Your task to perform on an android device: install app "Reddit" Image 0: 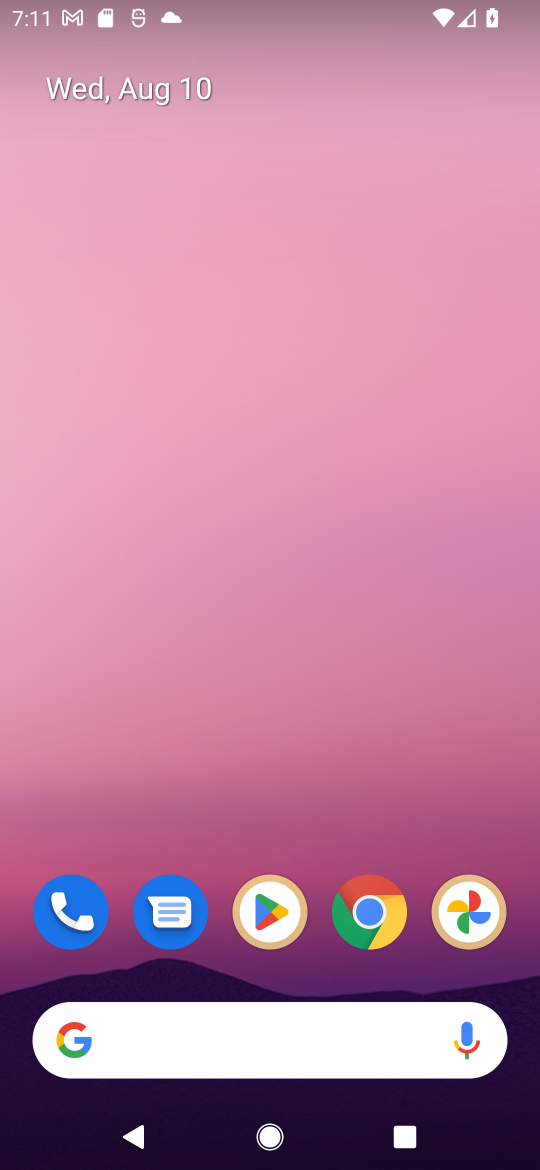
Step 0: drag from (524, 981) to (342, 1)
Your task to perform on an android device: install app "Reddit" Image 1: 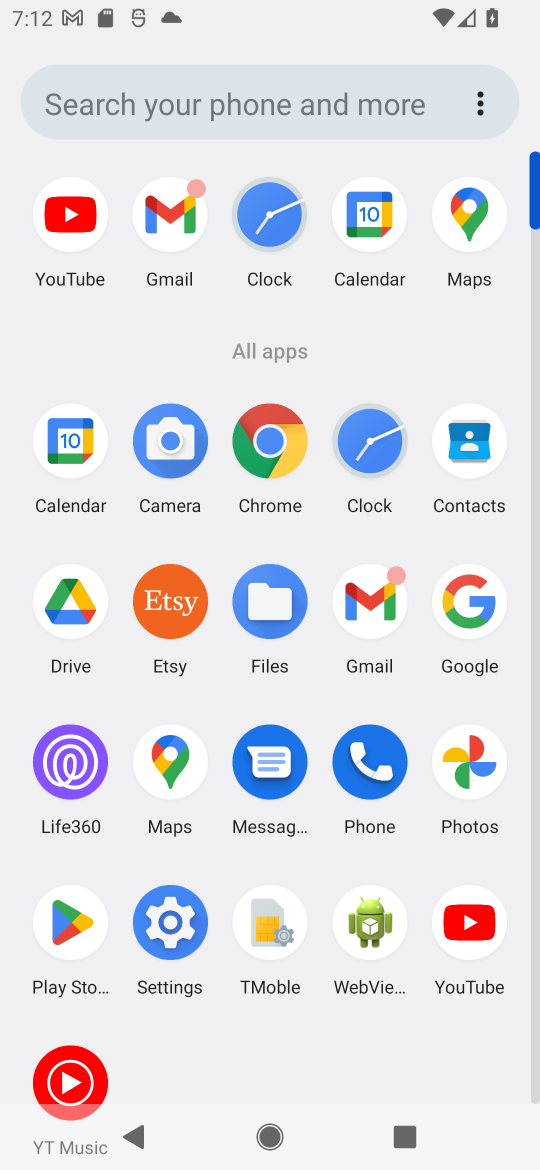
Step 1: click (59, 932)
Your task to perform on an android device: install app "Reddit" Image 2: 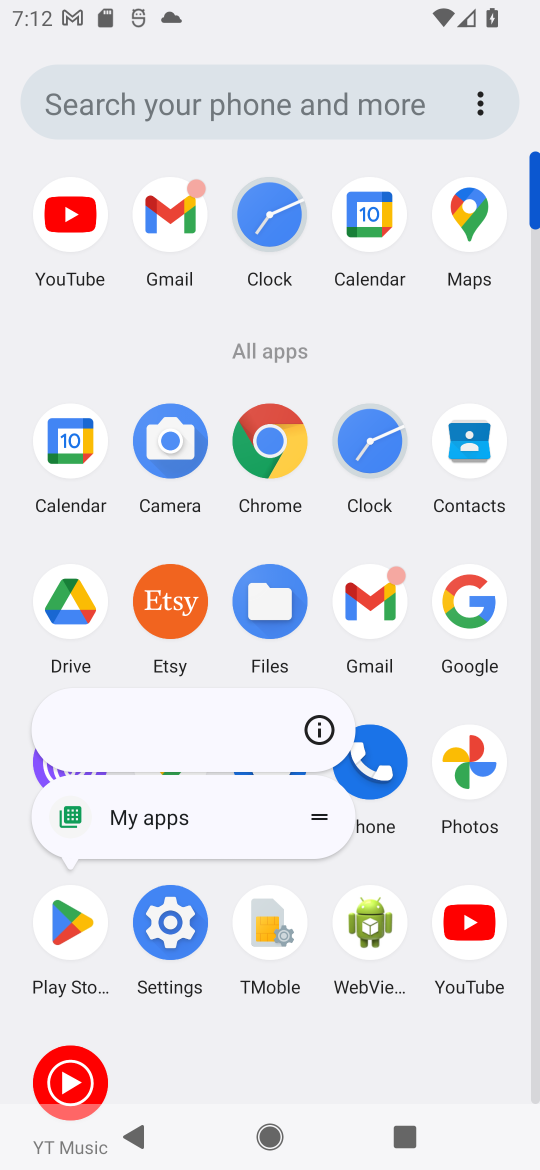
Step 2: click (87, 929)
Your task to perform on an android device: install app "Reddit" Image 3: 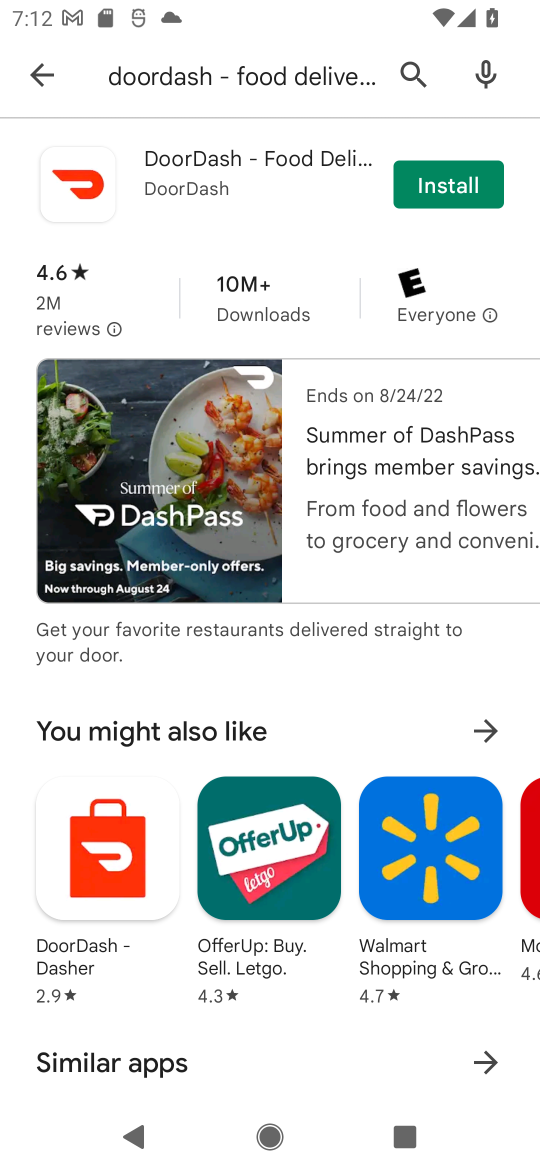
Step 3: press back button
Your task to perform on an android device: install app "Reddit" Image 4: 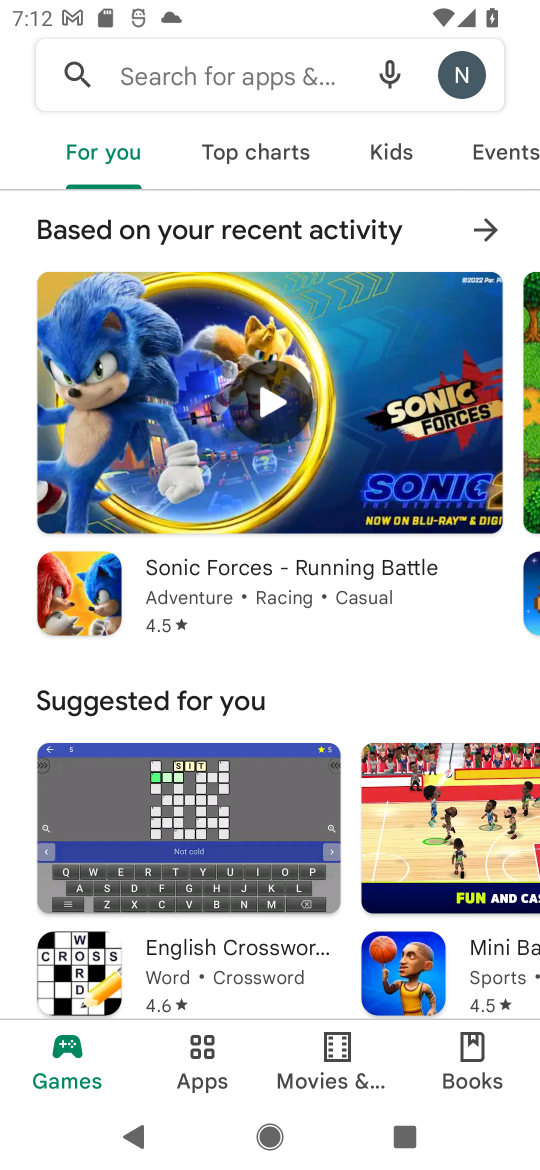
Step 4: click (144, 71)
Your task to perform on an android device: install app "Reddit" Image 5: 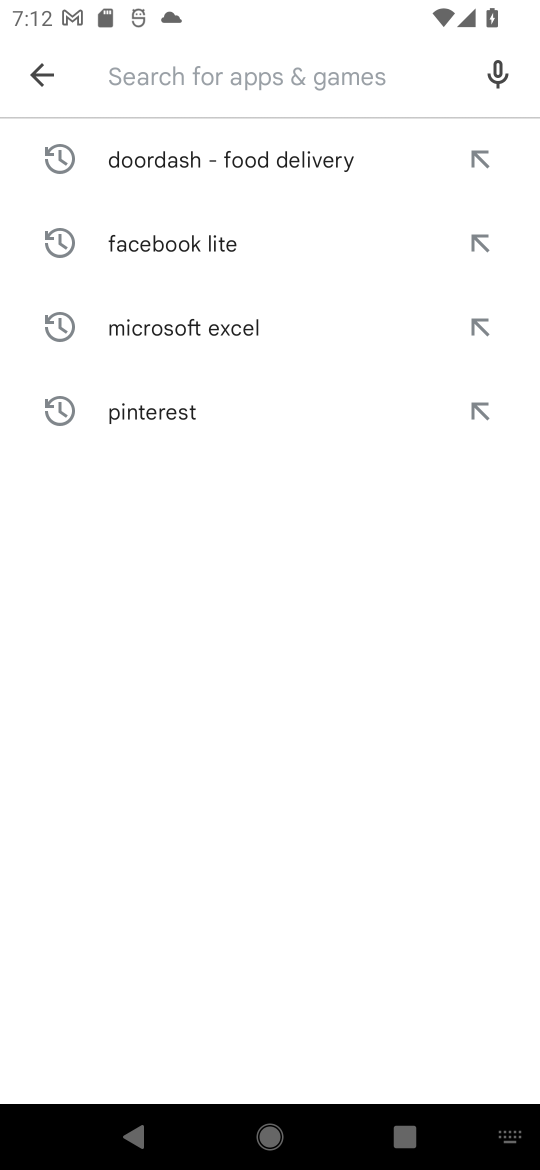
Step 5: type "Reddit"
Your task to perform on an android device: install app "Reddit" Image 6: 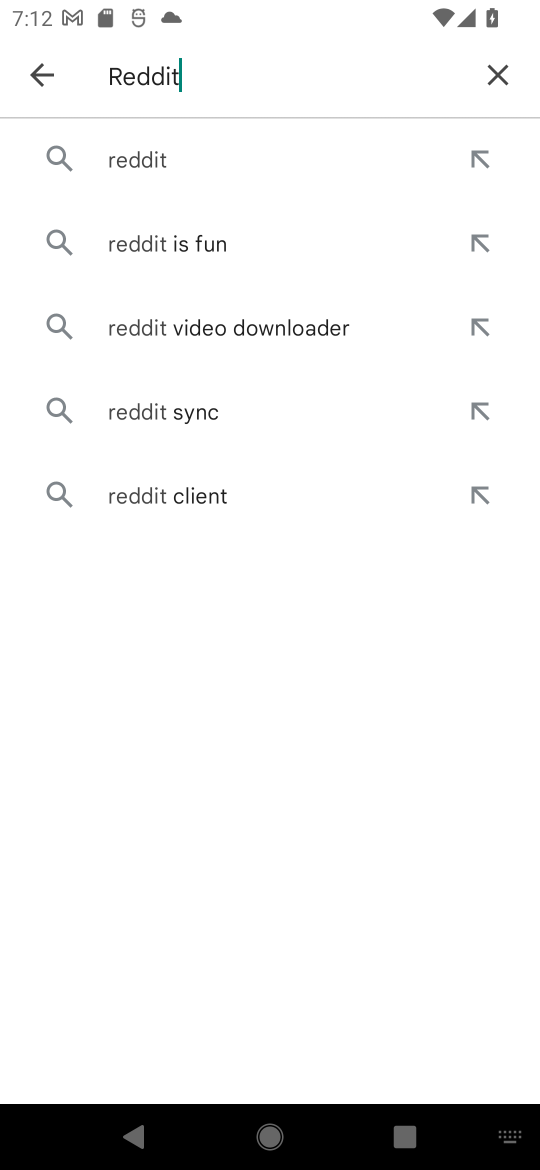
Step 6: click (222, 172)
Your task to perform on an android device: install app "Reddit" Image 7: 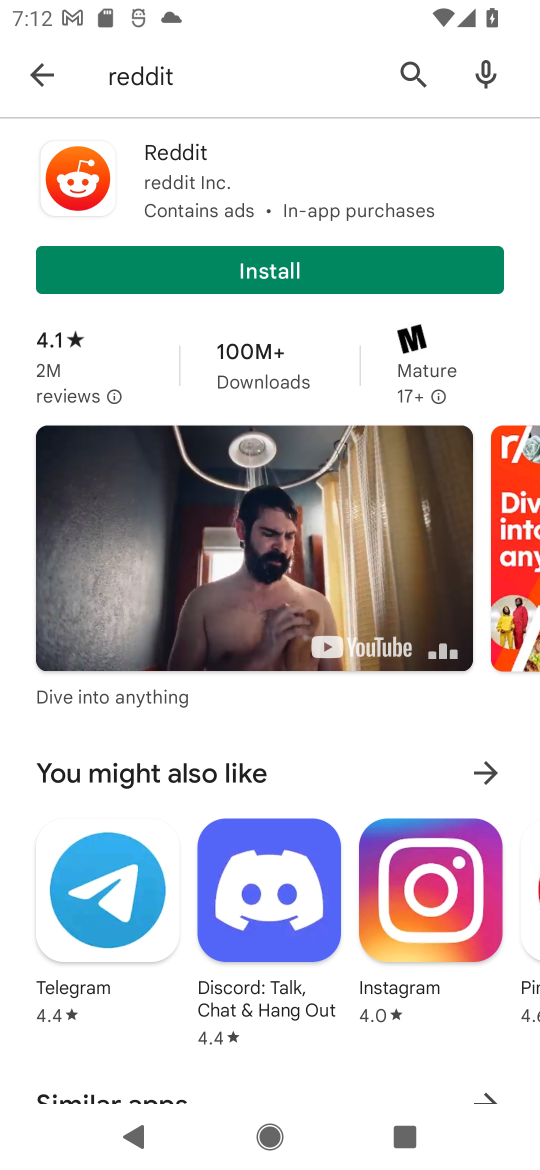
Step 7: click (223, 261)
Your task to perform on an android device: install app "Reddit" Image 8: 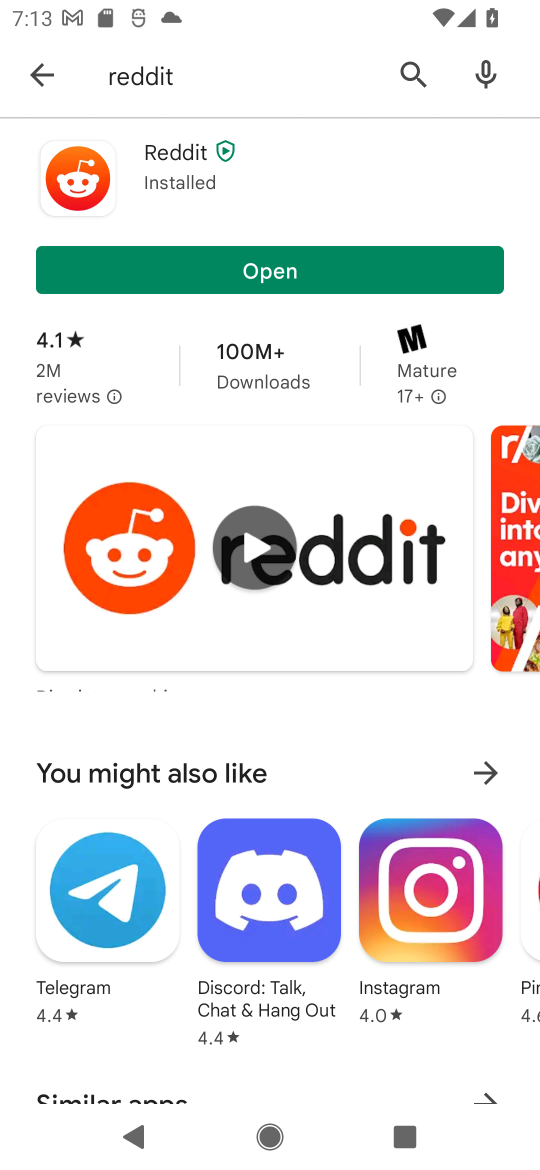
Step 8: task complete